Your task to perform on an android device: turn notification dots off Image 0: 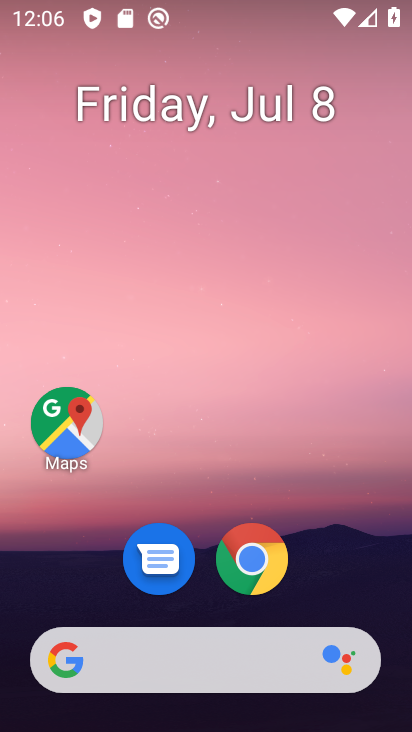
Step 0: drag from (222, 612) to (209, 41)
Your task to perform on an android device: turn notification dots off Image 1: 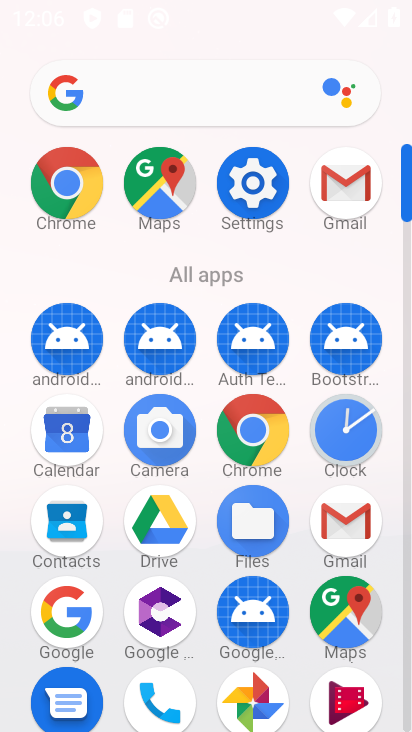
Step 1: click (272, 172)
Your task to perform on an android device: turn notification dots off Image 2: 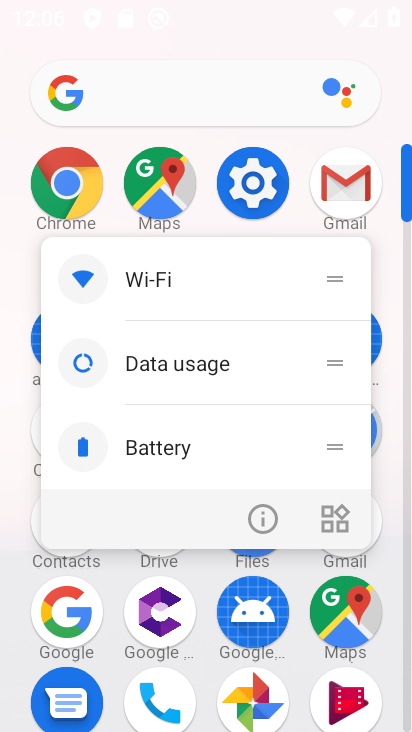
Step 2: click (264, 176)
Your task to perform on an android device: turn notification dots off Image 3: 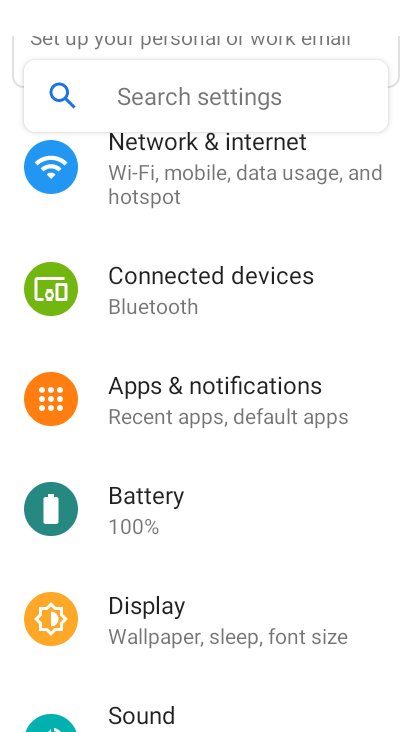
Step 3: click (239, 398)
Your task to perform on an android device: turn notification dots off Image 4: 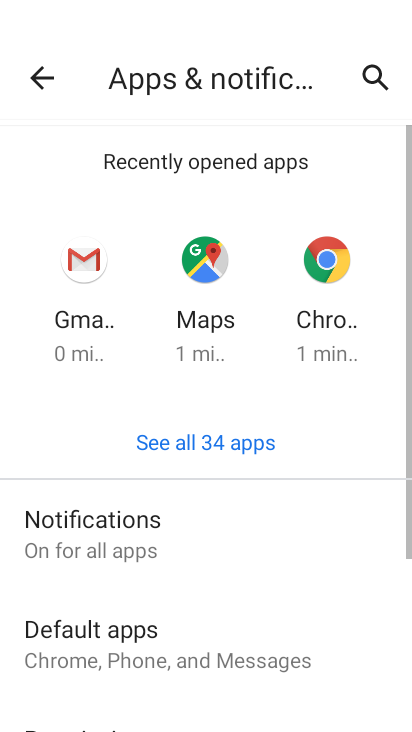
Step 4: click (185, 518)
Your task to perform on an android device: turn notification dots off Image 5: 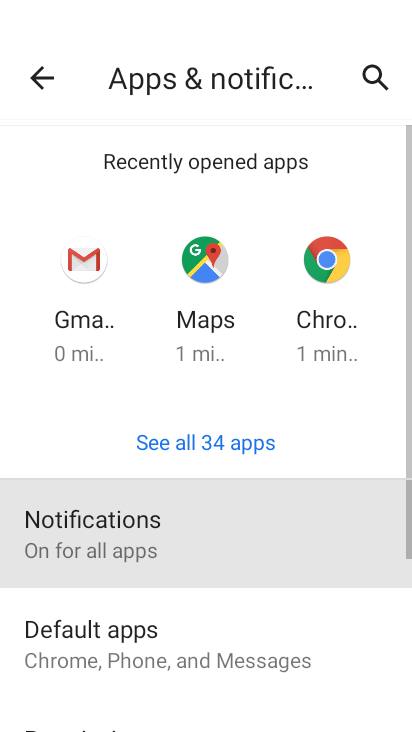
Step 5: drag from (185, 514) to (140, 82)
Your task to perform on an android device: turn notification dots off Image 6: 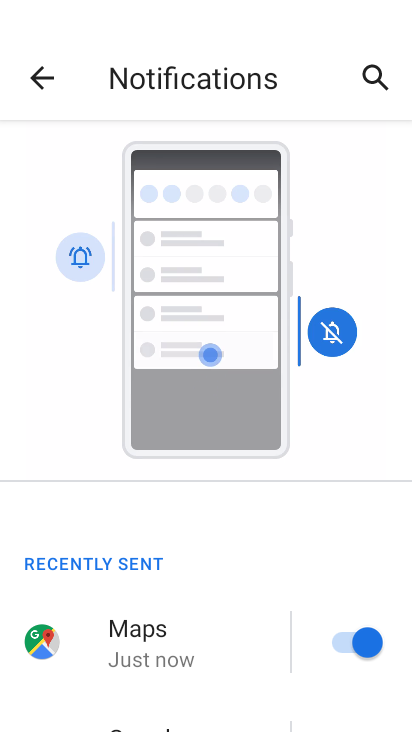
Step 6: drag from (161, 544) to (145, 168)
Your task to perform on an android device: turn notification dots off Image 7: 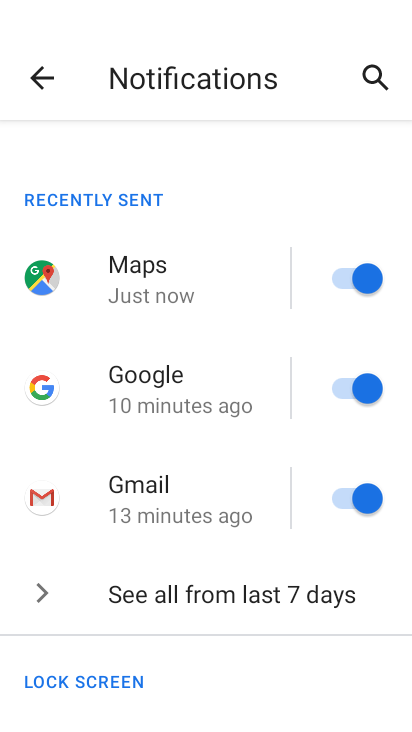
Step 7: drag from (196, 506) to (199, 45)
Your task to perform on an android device: turn notification dots off Image 8: 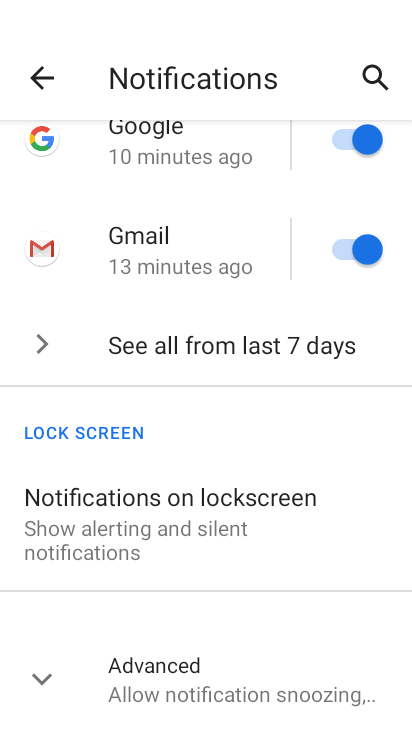
Step 8: click (228, 673)
Your task to perform on an android device: turn notification dots off Image 9: 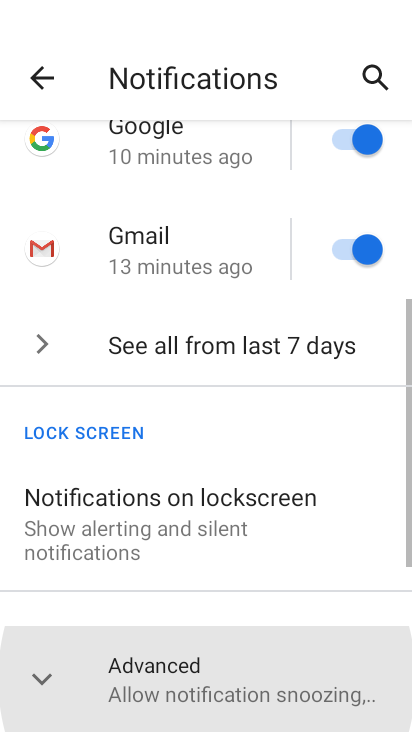
Step 9: drag from (227, 674) to (193, 281)
Your task to perform on an android device: turn notification dots off Image 10: 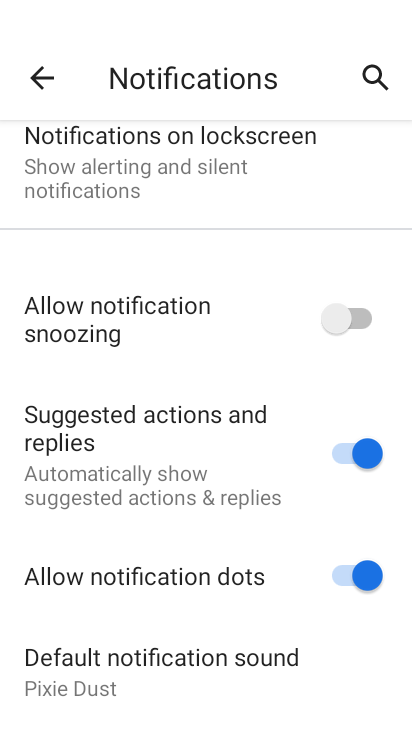
Step 10: click (346, 569)
Your task to perform on an android device: turn notification dots off Image 11: 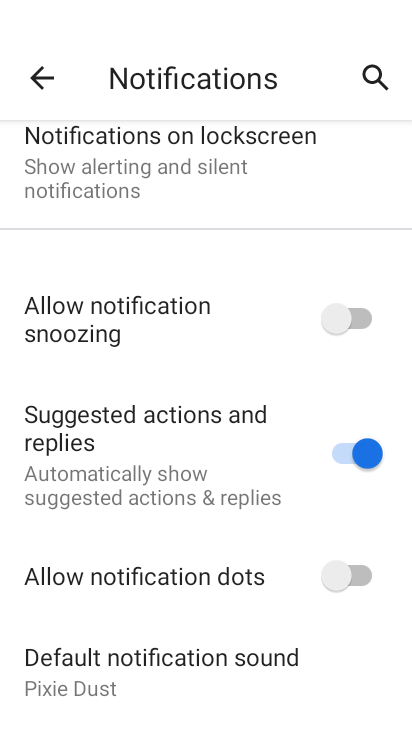
Step 11: task complete